Your task to perform on an android device: What's on my calendar tomorrow? Image 0: 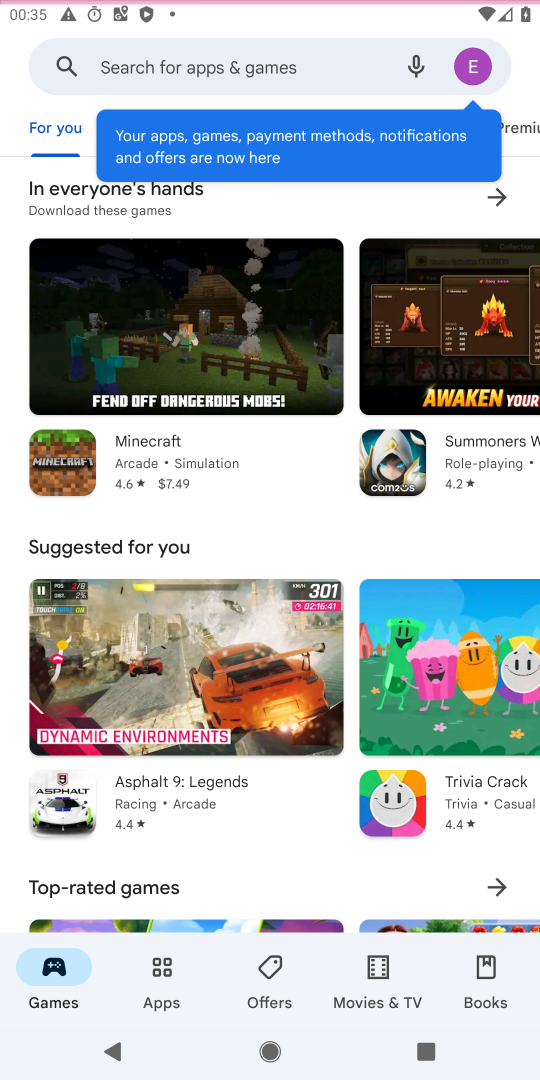
Step 0: press home button
Your task to perform on an android device: What's on my calendar tomorrow? Image 1: 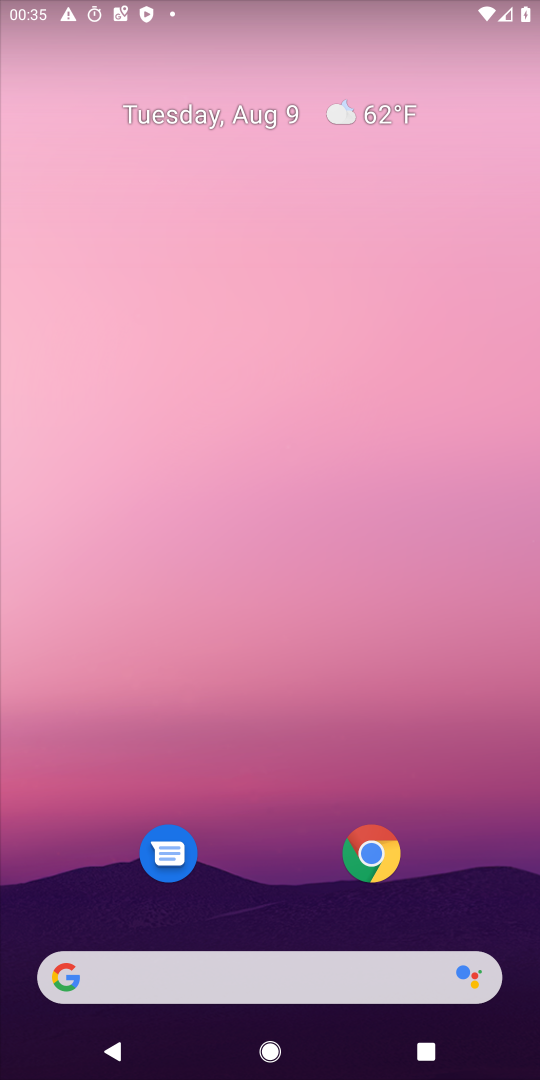
Step 1: drag from (265, 840) to (265, 122)
Your task to perform on an android device: What's on my calendar tomorrow? Image 2: 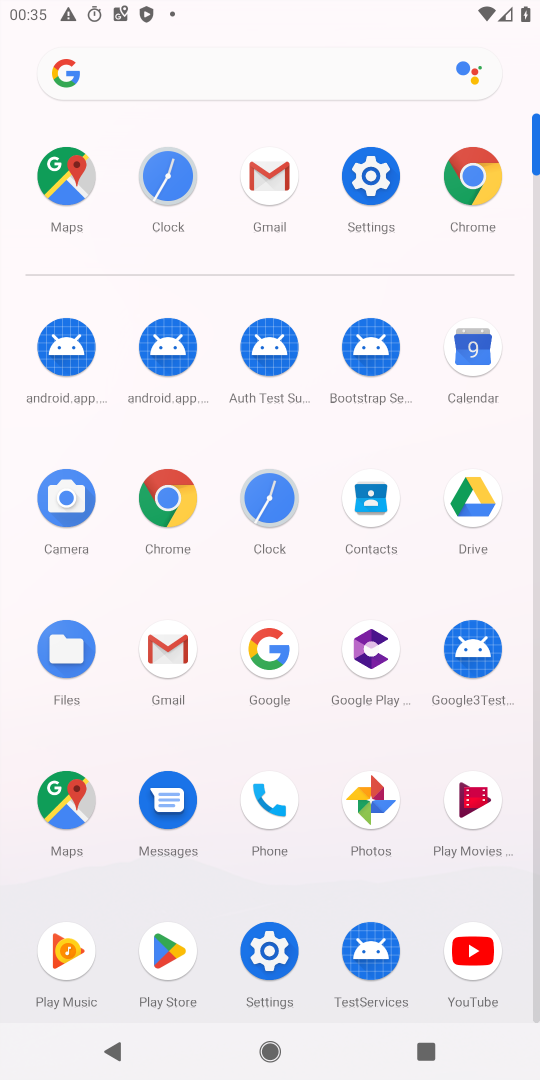
Step 2: click (478, 361)
Your task to perform on an android device: What's on my calendar tomorrow? Image 3: 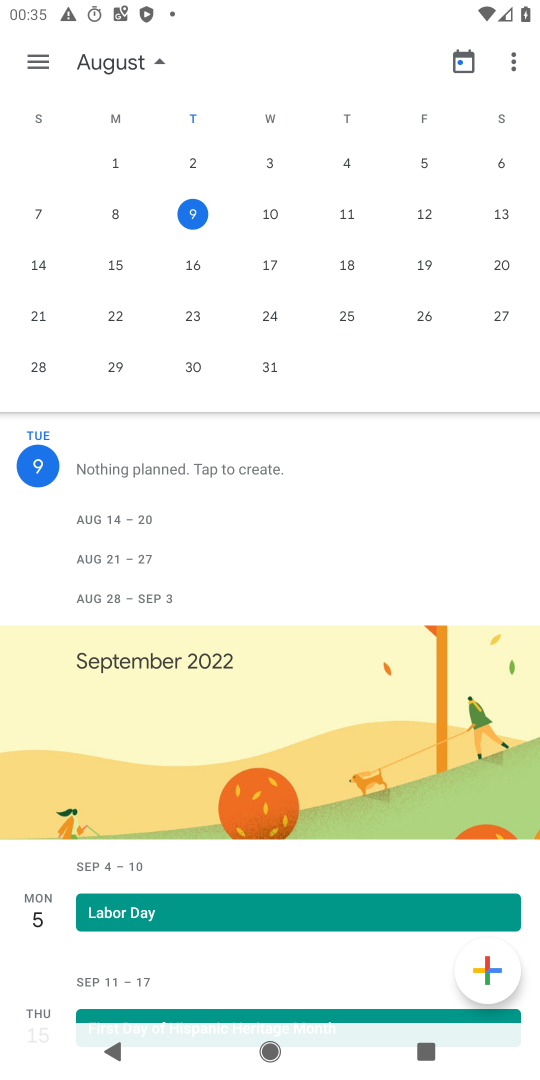
Step 3: click (269, 219)
Your task to perform on an android device: What's on my calendar tomorrow? Image 4: 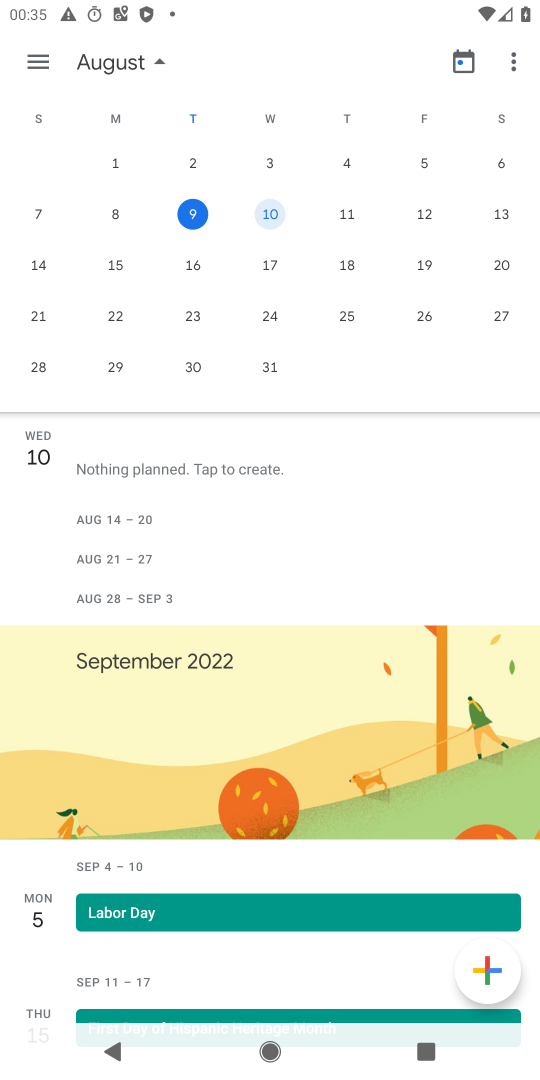
Step 4: task complete